Your task to perform on an android device: delete location history Image 0: 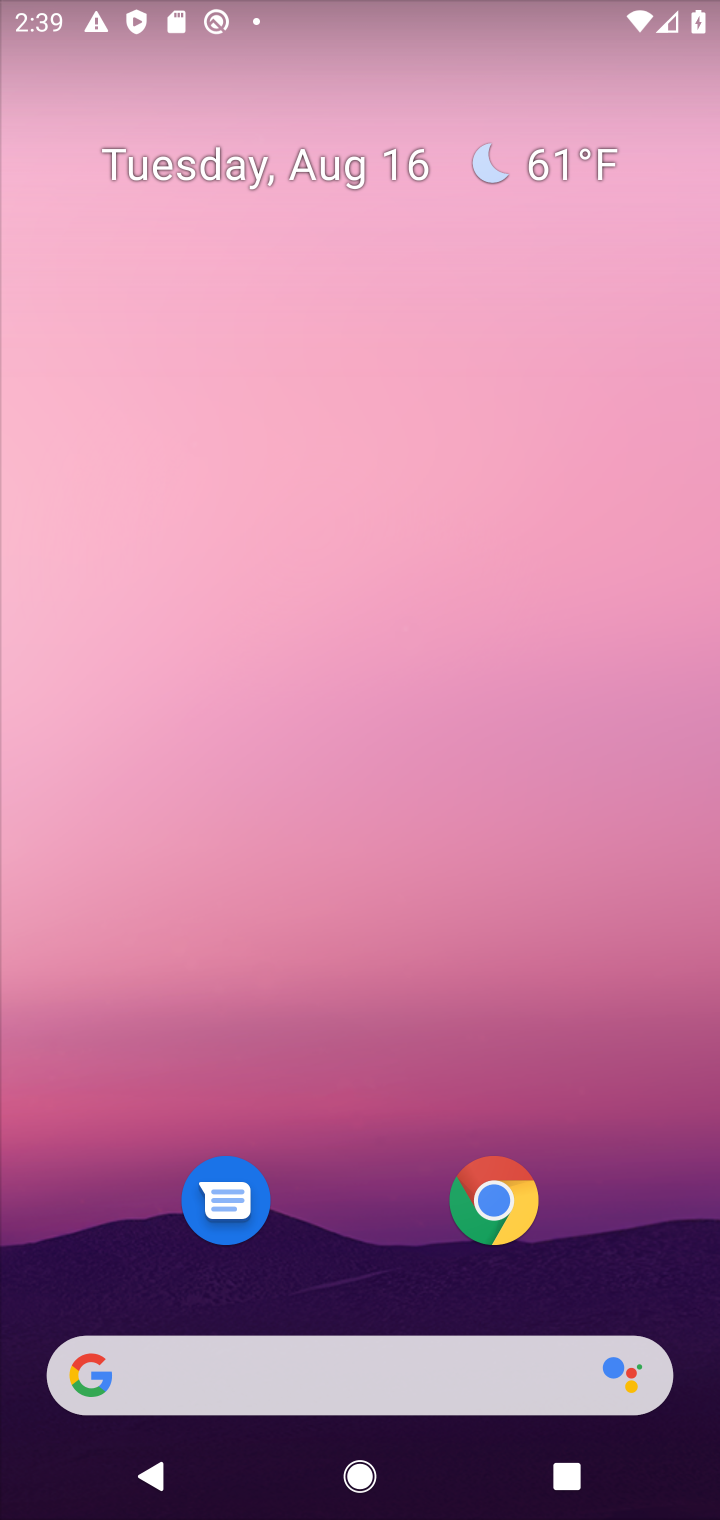
Step 0: drag from (82, 1444) to (437, 562)
Your task to perform on an android device: delete location history Image 1: 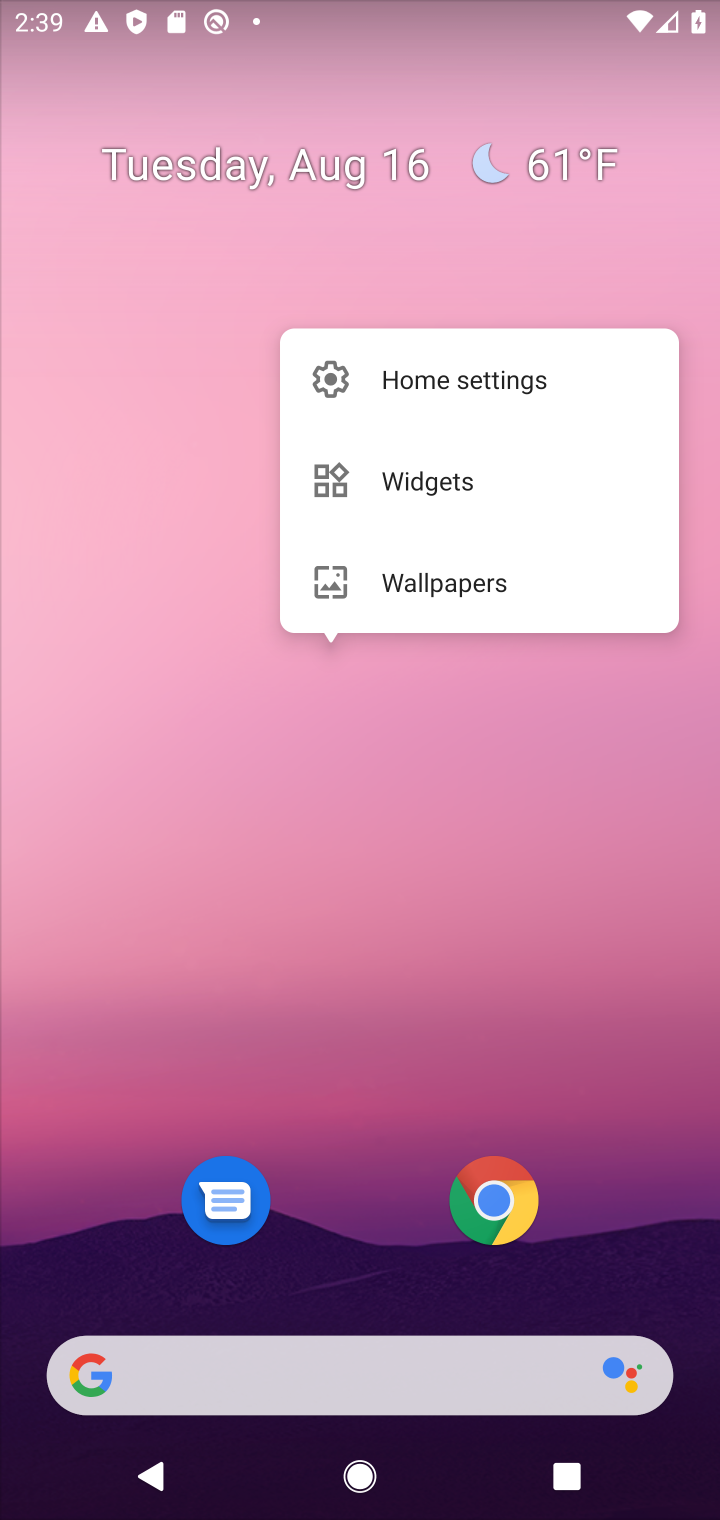
Step 1: click (58, 1474)
Your task to perform on an android device: delete location history Image 2: 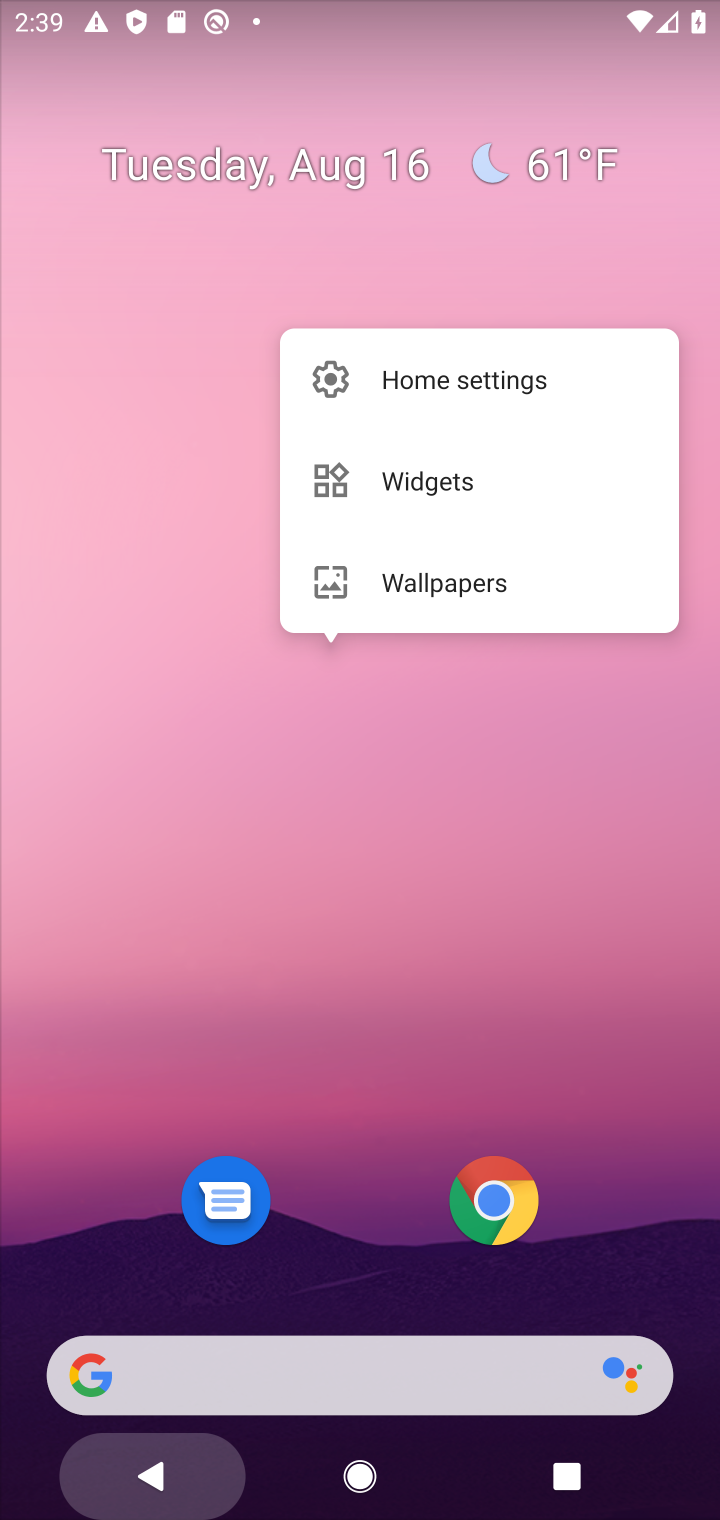
Step 2: drag from (92, 1405) to (148, 452)
Your task to perform on an android device: delete location history Image 3: 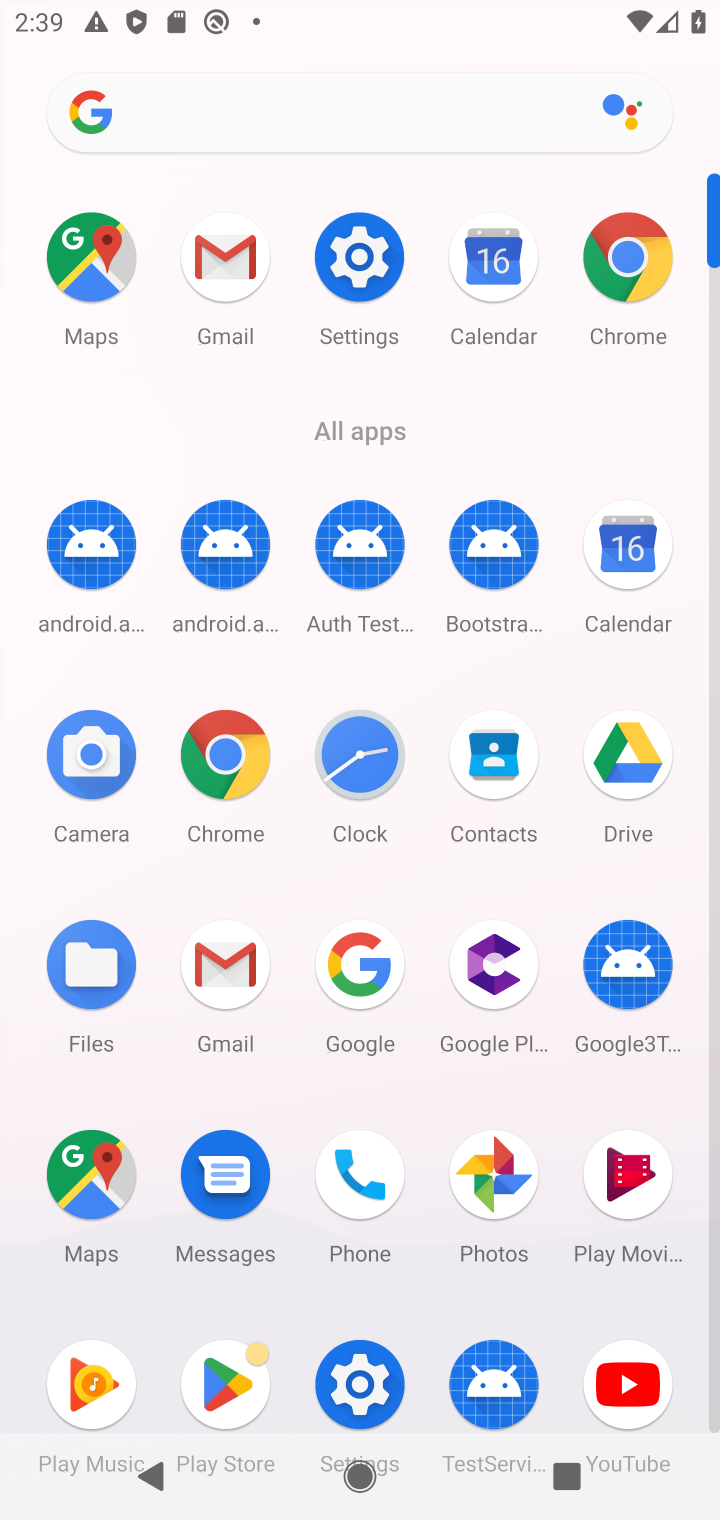
Step 3: click (339, 1369)
Your task to perform on an android device: delete location history Image 4: 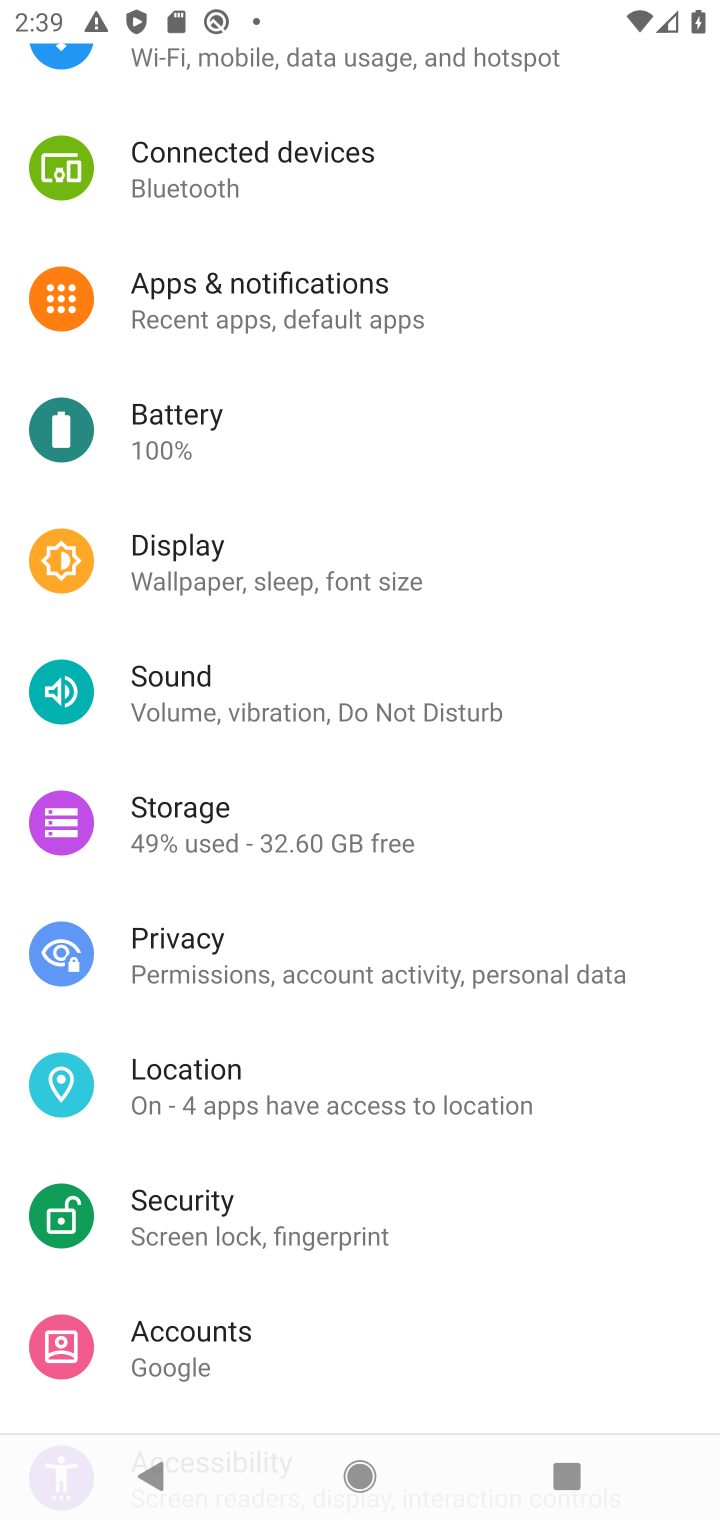
Step 4: click (228, 1097)
Your task to perform on an android device: delete location history Image 5: 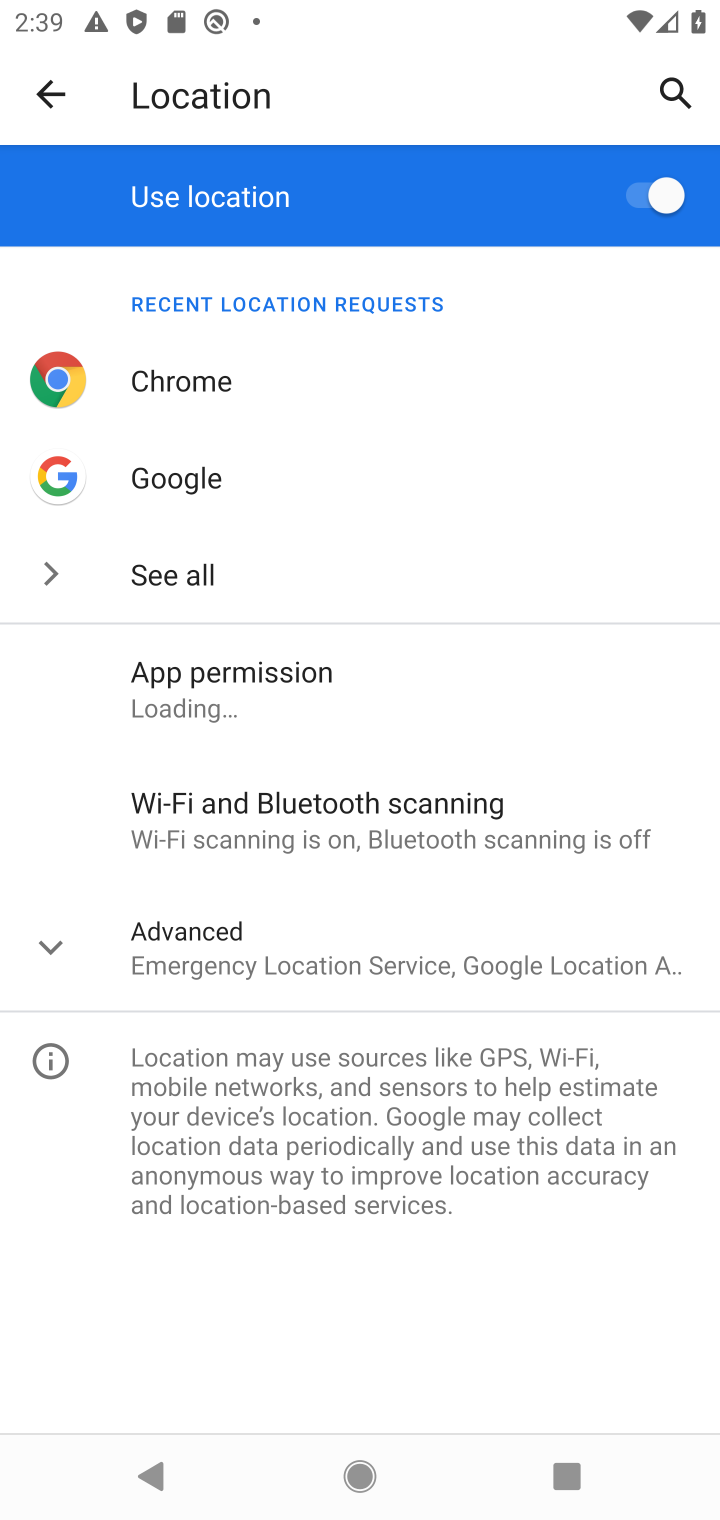
Step 5: click (188, 949)
Your task to perform on an android device: delete location history Image 6: 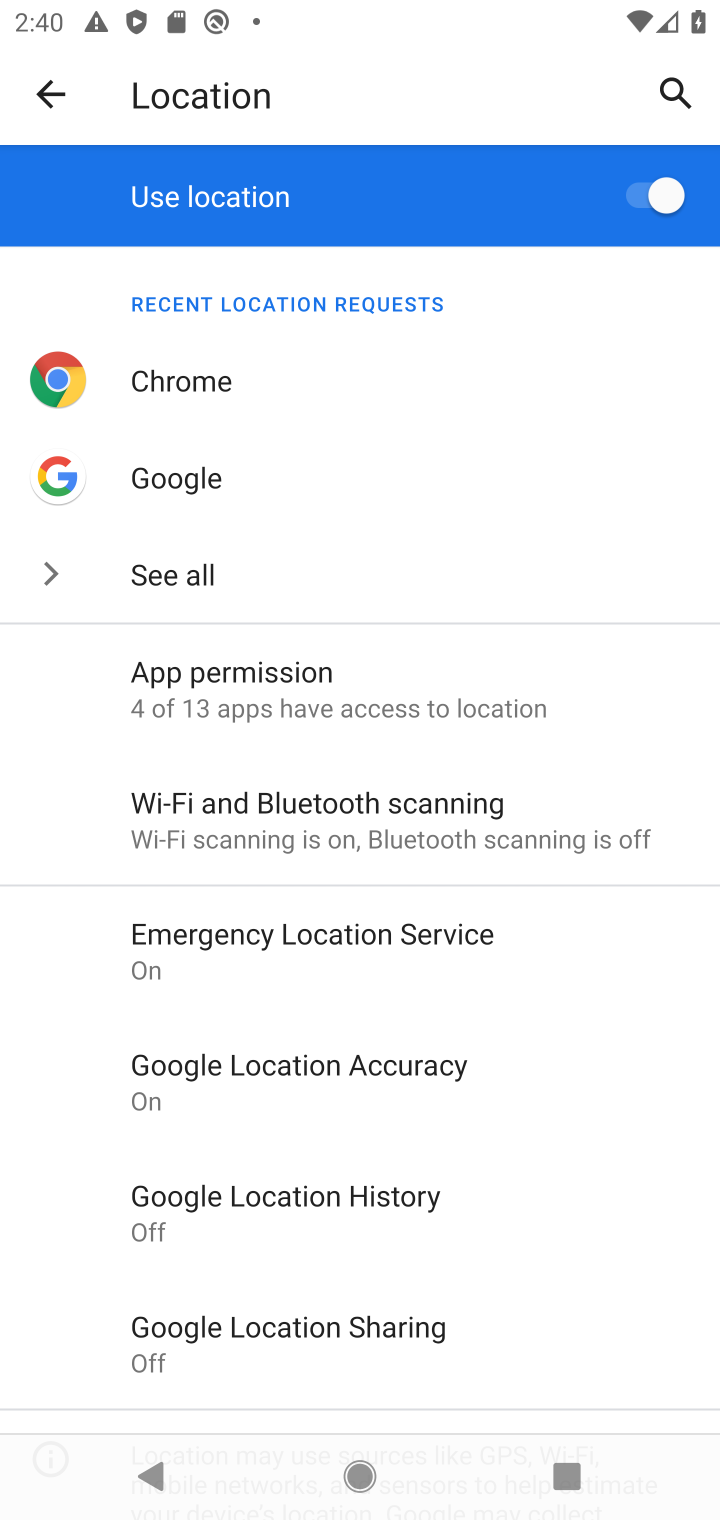
Step 6: click (220, 1218)
Your task to perform on an android device: delete location history Image 7: 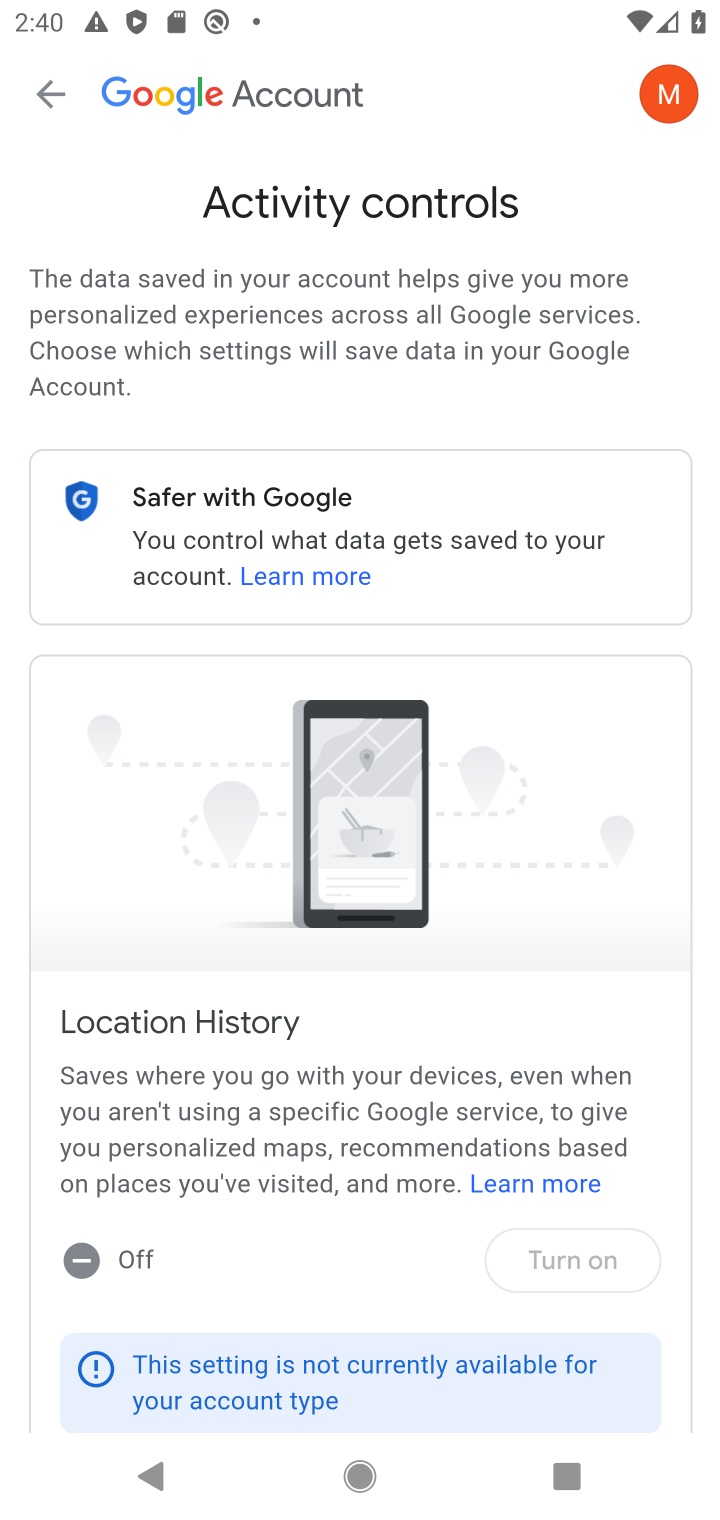
Step 7: task complete